Your task to perform on an android device: turn vacation reply on in the gmail app Image 0: 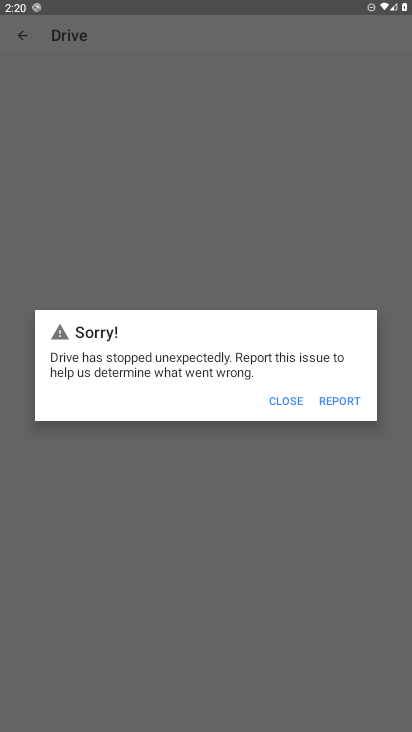
Step 0: press home button
Your task to perform on an android device: turn vacation reply on in the gmail app Image 1: 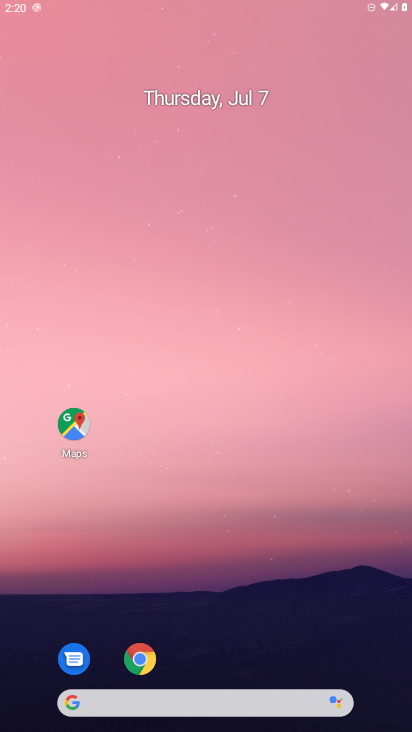
Step 1: press home button
Your task to perform on an android device: turn vacation reply on in the gmail app Image 2: 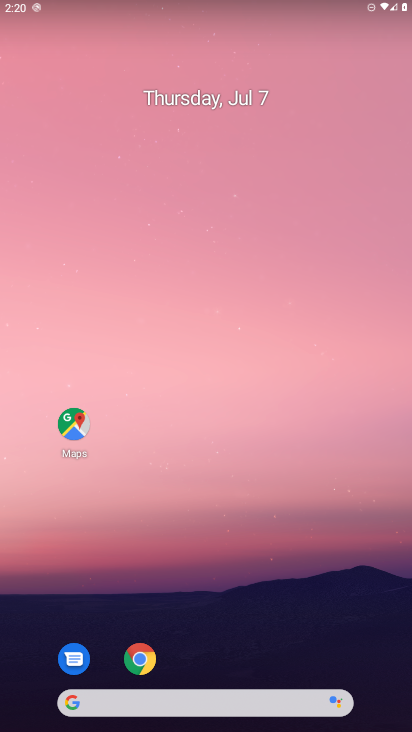
Step 2: drag from (233, 659) to (240, 33)
Your task to perform on an android device: turn vacation reply on in the gmail app Image 3: 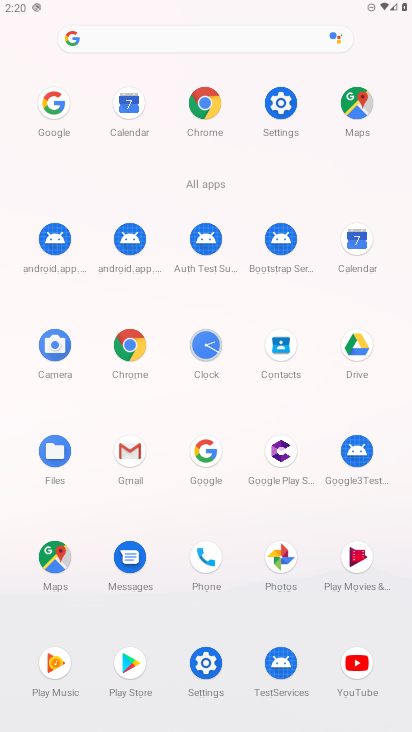
Step 3: click (130, 445)
Your task to perform on an android device: turn vacation reply on in the gmail app Image 4: 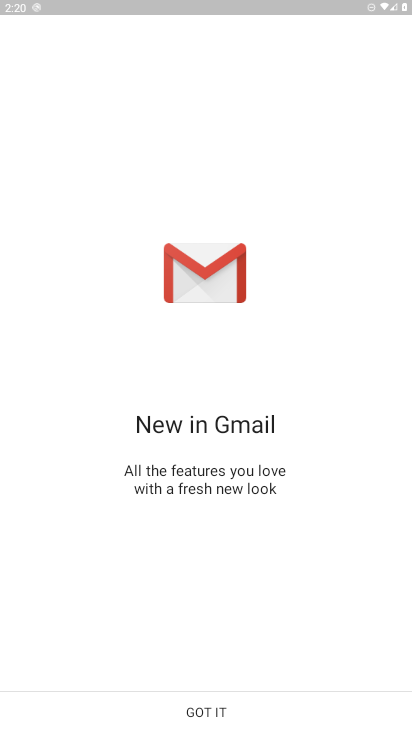
Step 4: click (215, 715)
Your task to perform on an android device: turn vacation reply on in the gmail app Image 5: 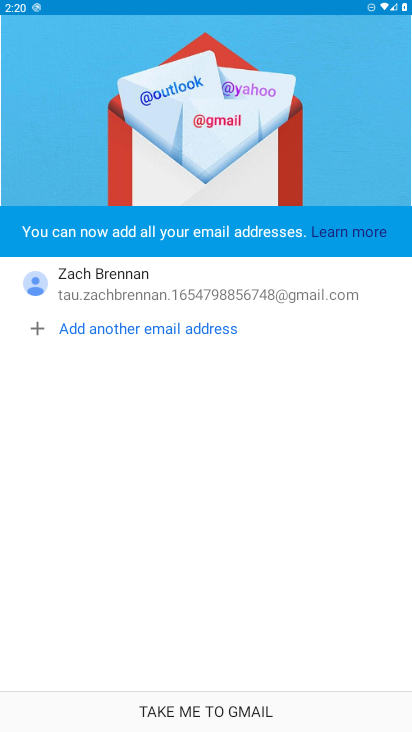
Step 5: click (215, 715)
Your task to perform on an android device: turn vacation reply on in the gmail app Image 6: 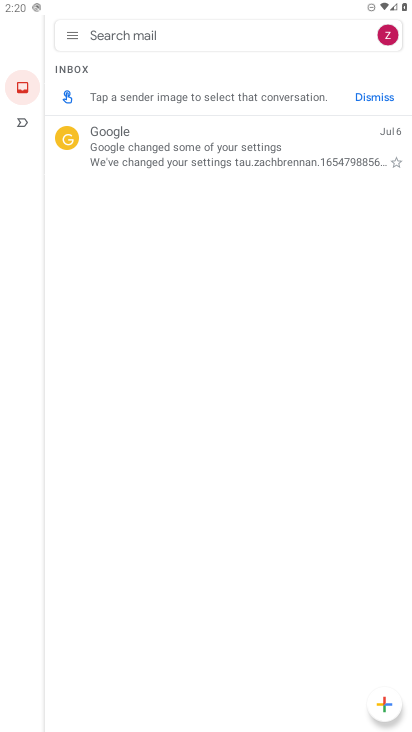
Step 6: click (73, 32)
Your task to perform on an android device: turn vacation reply on in the gmail app Image 7: 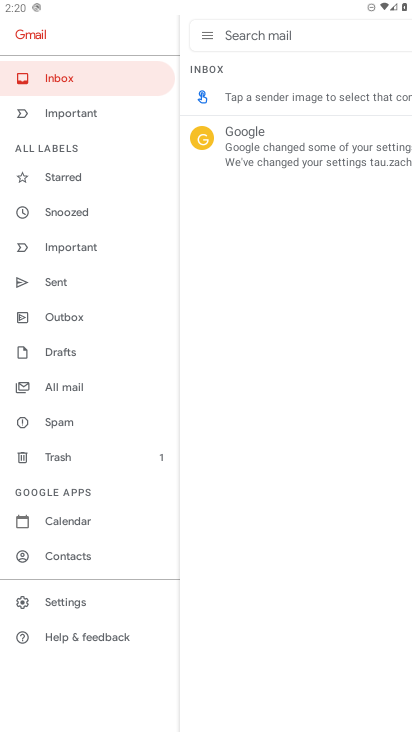
Step 7: click (99, 600)
Your task to perform on an android device: turn vacation reply on in the gmail app Image 8: 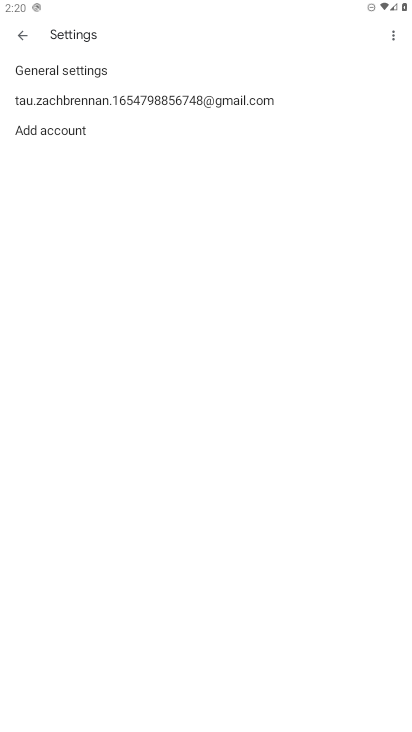
Step 8: click (150, 94)
Your task to perform on an android device: turn vacation reply on in the gmail app Image 9: 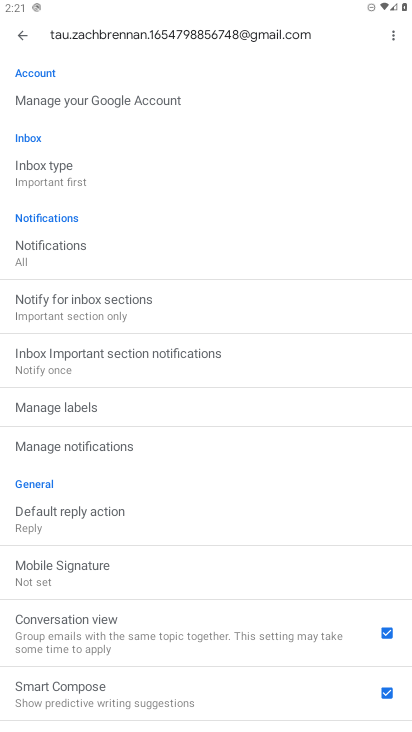
Step 9: drag from (199, 668) to (202, 432)
Your task to perform on an android device: turn vacation reply on in the gmail app Image 10: 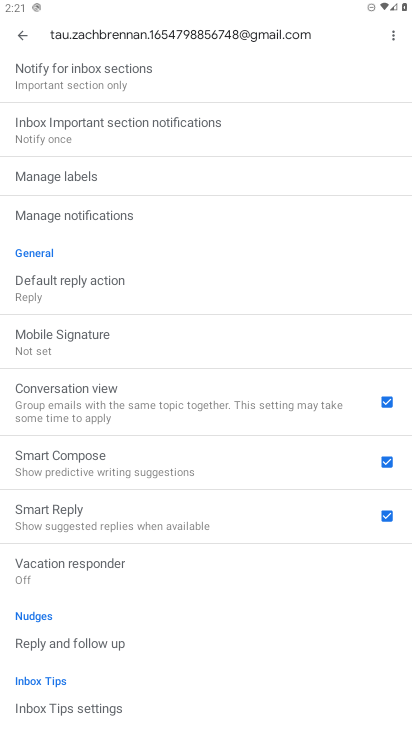
Step 10: click (83, 570)
Your task to perform on an android device: turn vacation reply on in the gmail app Image 11: 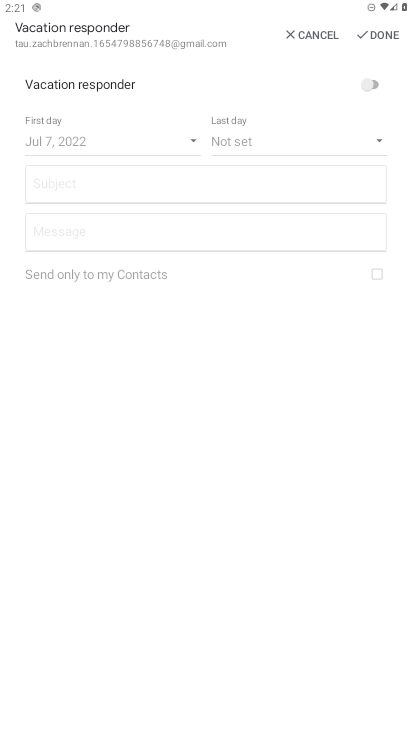
Step 11: click (367, 80)
Your task to perform on an android device: turn vacation reply on in the gmail app Image 12: 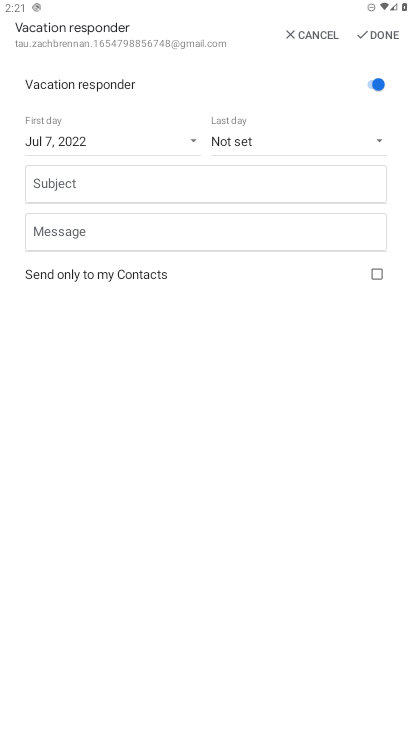
Step 12: task complete